Your task to perform on an android device: Open Wikipedia Image 0: 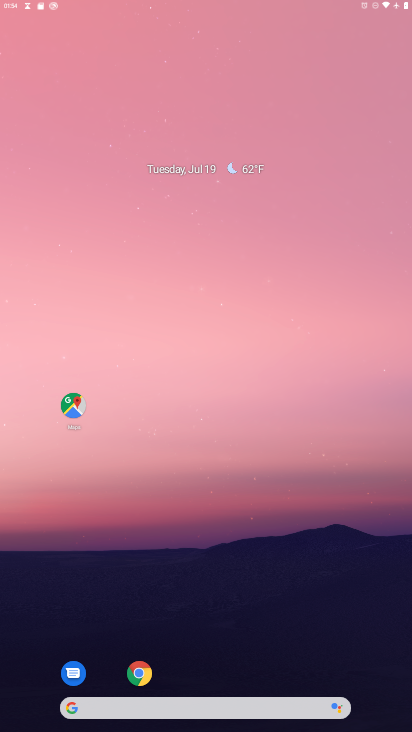
Step 0: click (319, 417)
Your task to perform on an android device: Open Wikipedia Image 1: 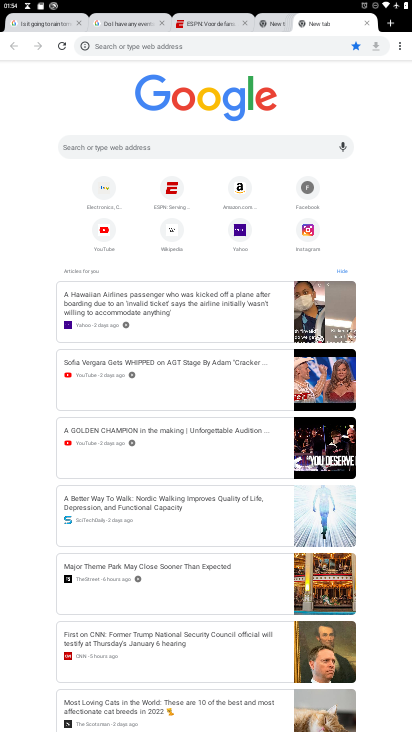
Step 1: click (165, 228)
Your task to perform on an android device: Open Wikipedia Image 2: 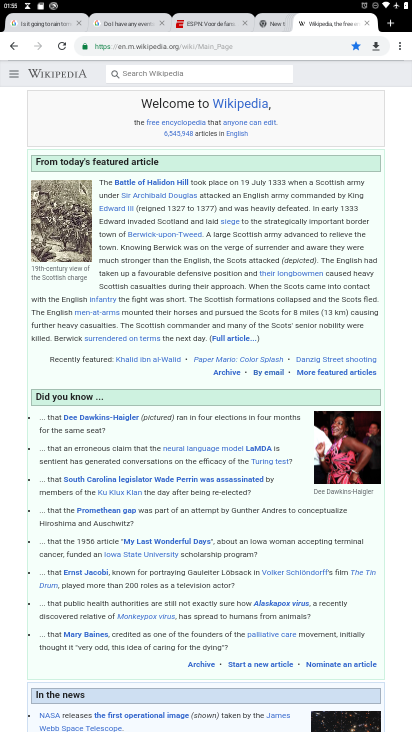
Step 2: task complete